Your task to perform on an android device: open device folders in google photos Image 0: 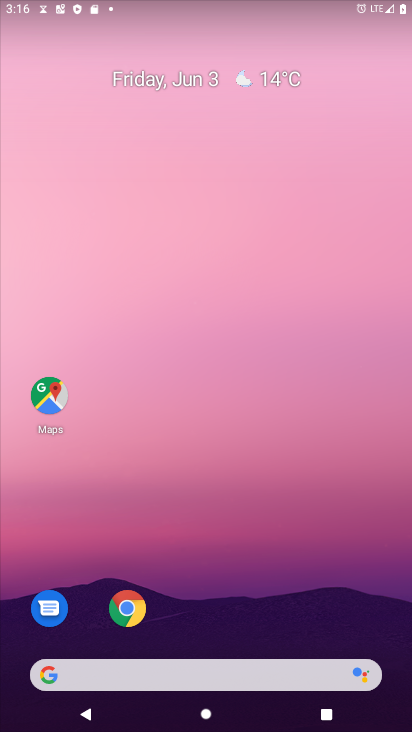
Step 0: drag from (236, 317) to (222, 159)
Your task to perform on an android device: open device folders in google photos Image 1: 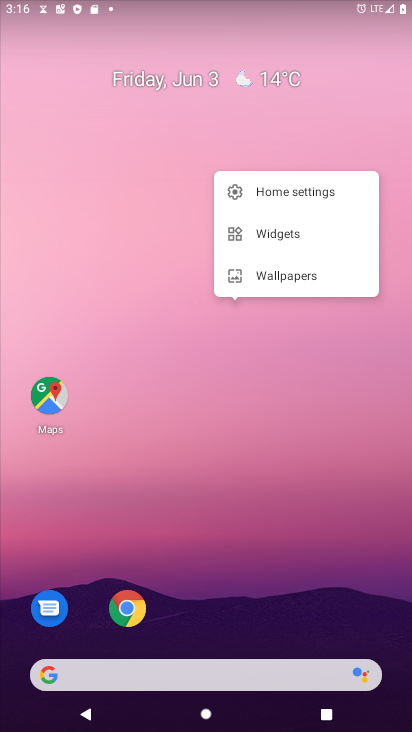
Step 1: drag from (190, 687) to (109, 152)
Your task to perform on an android device: open device folders in google photos Image 2: 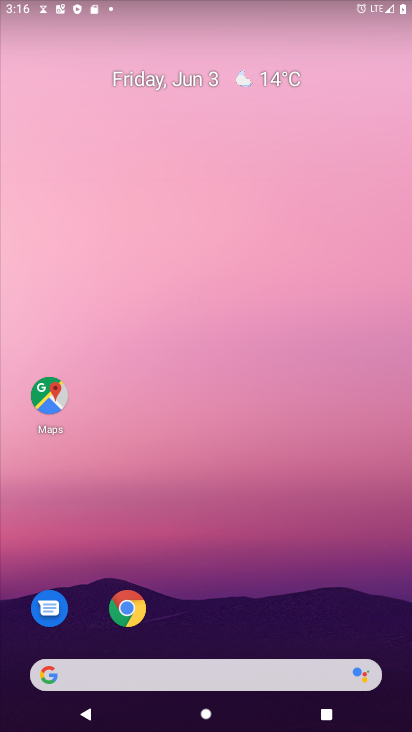
Step 2: drag from (200, 669) to (187, 162)
Your task to perform on an android device: open device folders in google photos Image 3: 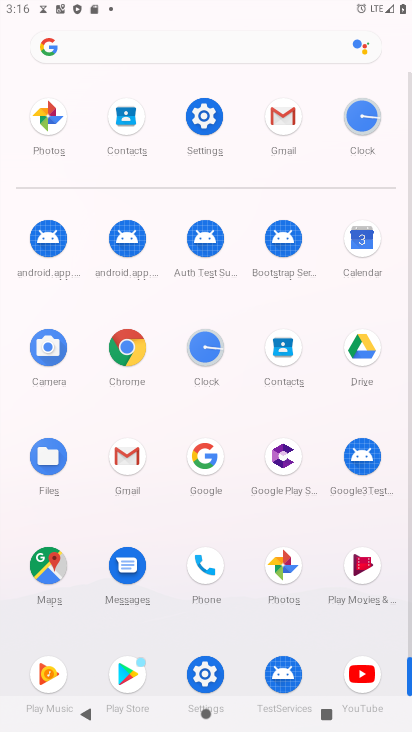
Step 3: click (287, 567)
Your task to perform on an android device: open device folders in google photos Image 4: 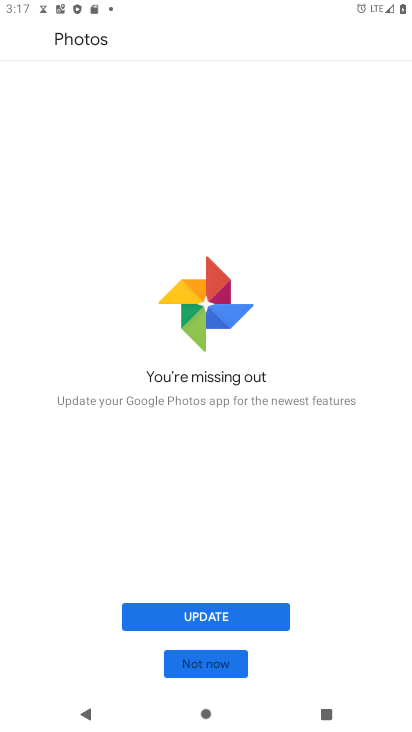
Step 4: click (218, 665)
Your task to perform on an android device: open device folders in google photos Image 5: 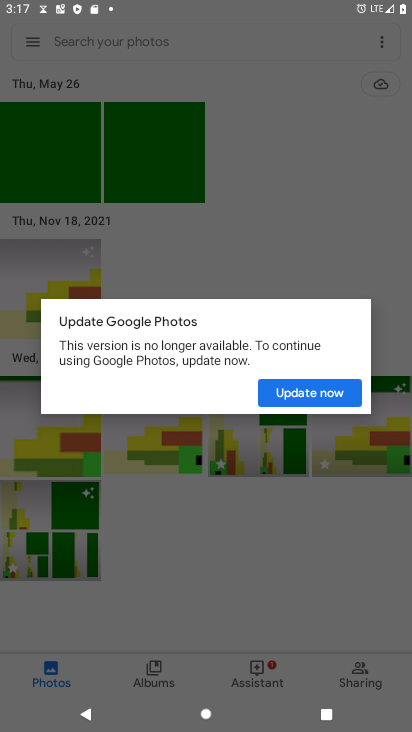
Step 5: click (319, 394)
Your task to perform on an android device: open device folders in google photos Image 6: 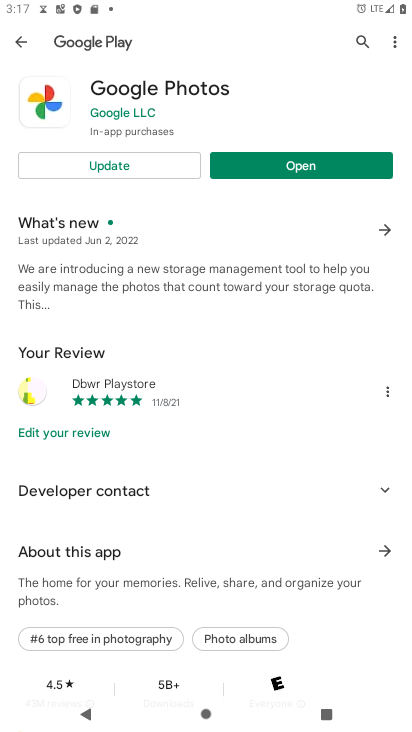
Step 6: click (130, 164)
Your task to perform on an android device: open device folders in google photos Image 7: 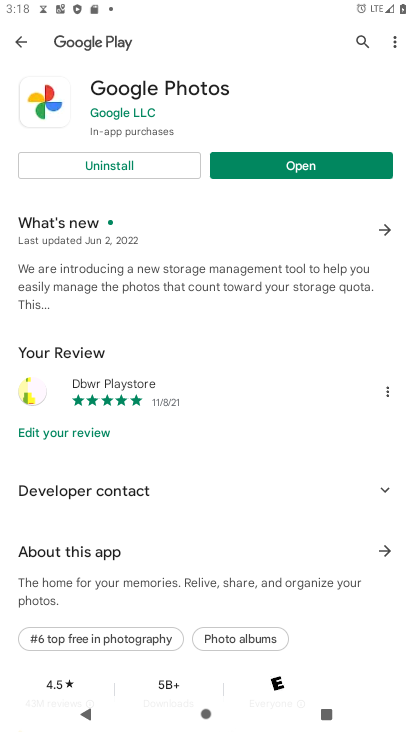
Step 7: click (267, 163)
Your task to perform on an android device: open device folders in google photos Image 8: 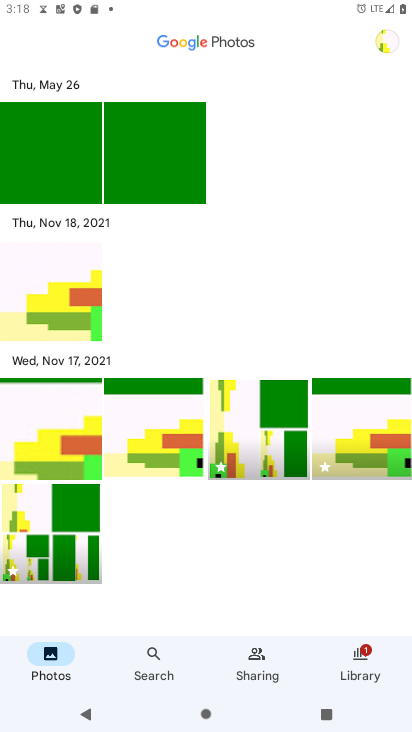
Step 8: click (362, 663)
Your task to perform on an android device: open device folders in google photos Image 9: 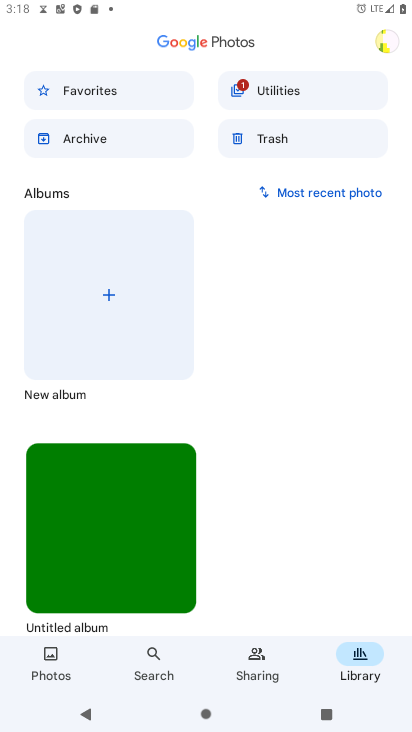
Step 9: task complete